Your task to perform on an android device: turn off notifications settings in the gmail app Image 0: 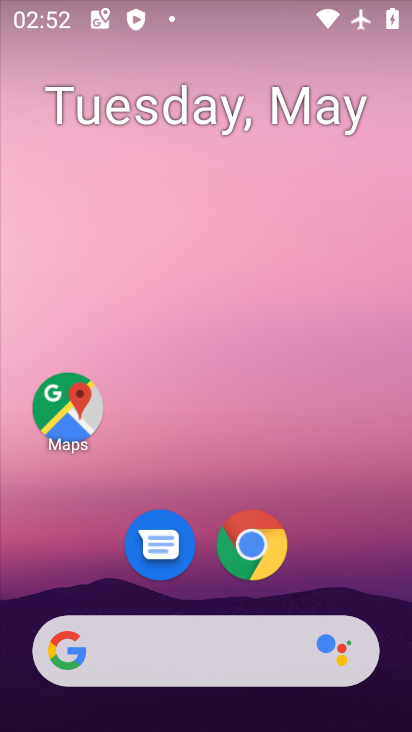
Step 0: drag from (396, 642) to (314, 79)
Your task to perform on an android device: turn off notifications settings in the gmail app Image 1: 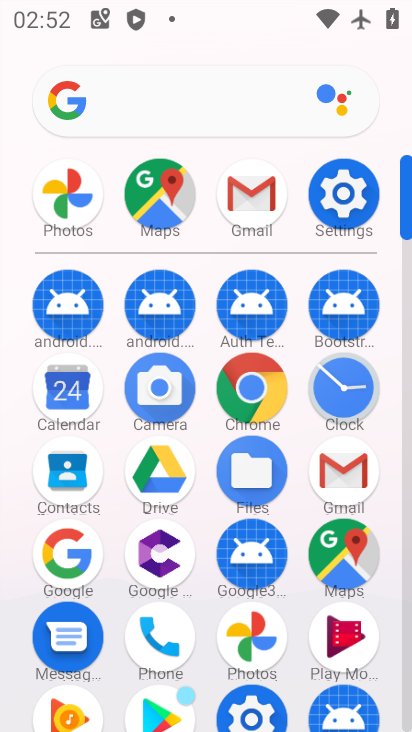
Step 1: click (405, 712)
Your task to perform on an android device: turn off notifications settings in the gmail app Image 2: 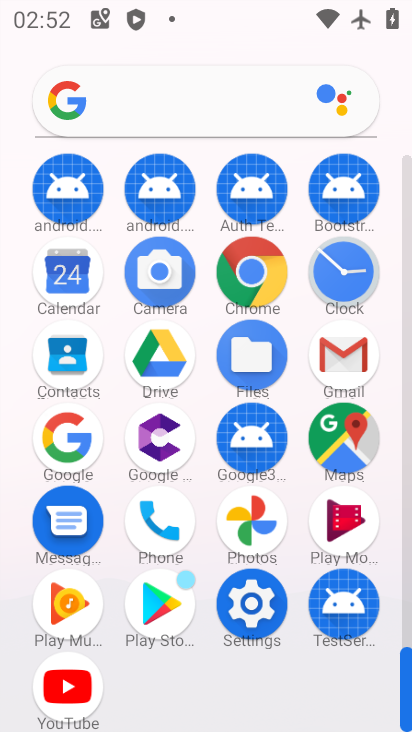
Step 2: click (341, 347)
Your task to perform on an android device: turn off notifications settings in the gmail app Image 3: 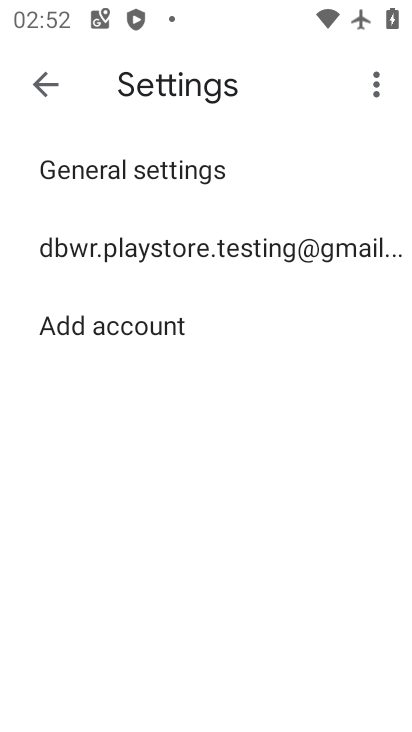
Step 3: click (139, 252)
Your task to perform on an android device: turn off notifications settings in the gmail app Image 4: 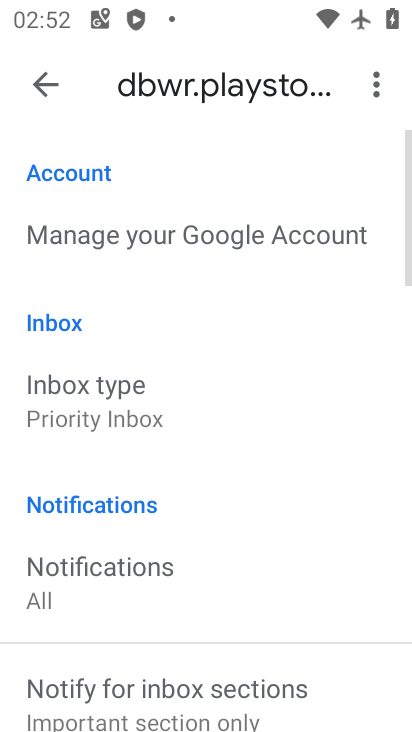
Step 4: drag from (224, 577) to (208, 68)
Your task to perform on an android device: turn off notifications settings in the gmail app Image 5: 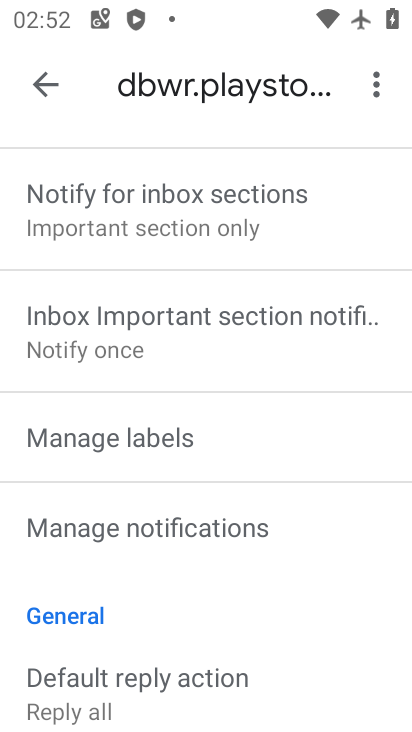
Step 5: click (132, 525)
Your task to perform on an android device: turn off notifications settings in the gmail app Image 6: 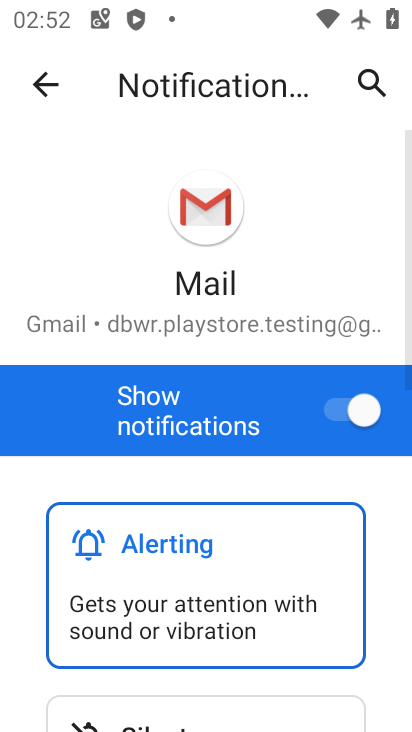
Step 6: click (335, 405)
Your task to perform on an android device: turn off notifications settings in the gmail app Image 7: 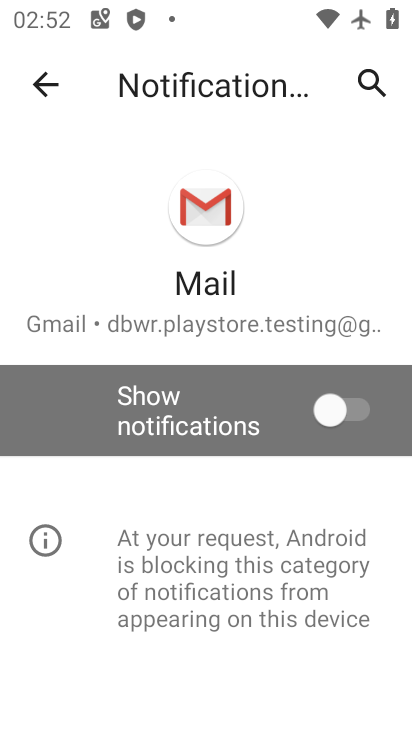
Step 7: task complete